Your task to perform on an android device: allow notifications from all sites in the chrome app Image 0: 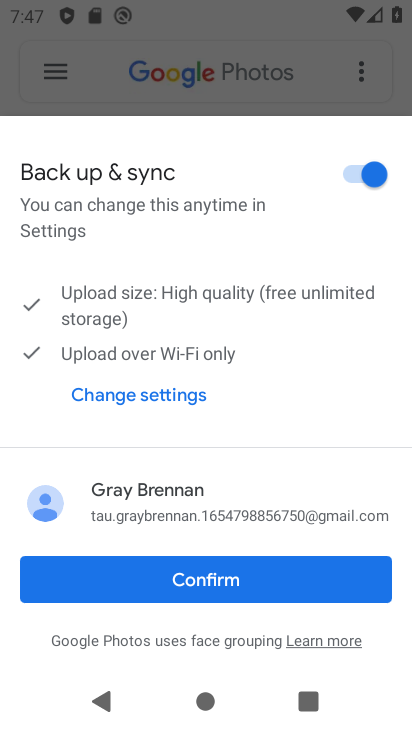
Step 0: click (360, 591)
Your task to perform on an android device: allow notifications from all sites in the chrome app Image 1: 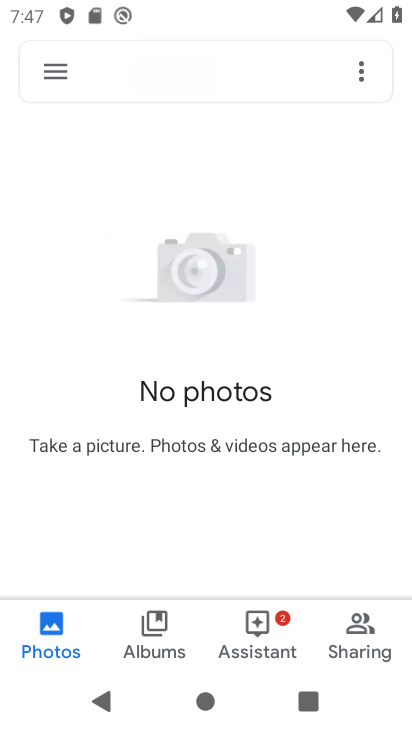
Step 1: press home button
Your task to perform on an android device: allow notifications from all sites in the chrome app Image 2: 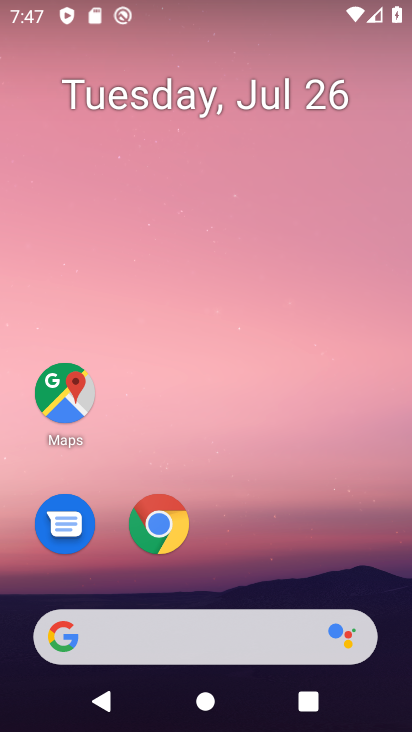
Step 2: drag from (269, 561) to (271, 75)
Your task to perform on an android device: allow notifications from all sites in the chrome app Image 3: 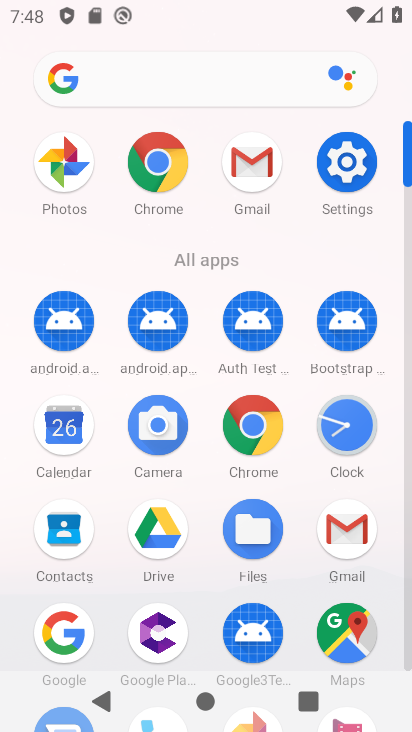
Step 3: click (163, 165)
Your task to perform on an android device: allow notifications from all sites in the chrome app Image 4: 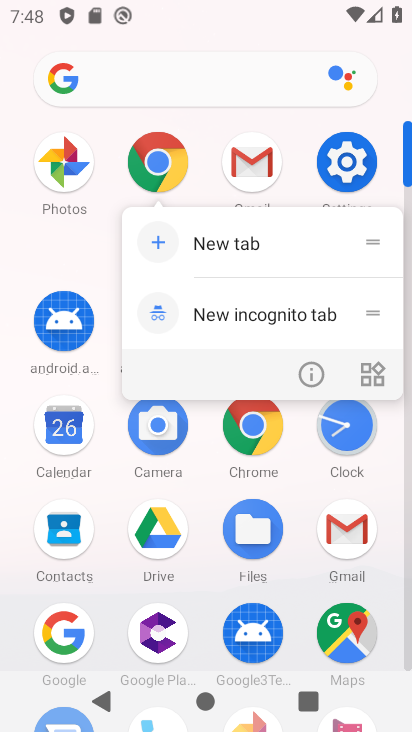
Step 4: click (163, 165)
Your task to perform on an android device: allow notifications from all sites in the chrome app Image 5: 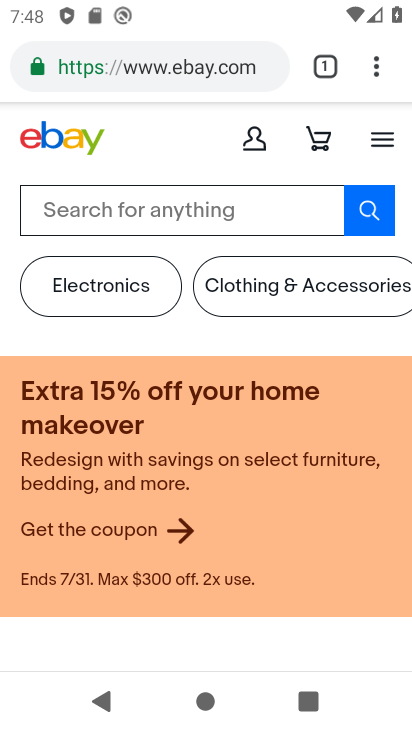
Step 5: click (374, 62)
Your task to perform on an android device: allow notifications from all sites in the chrome app Image 6: 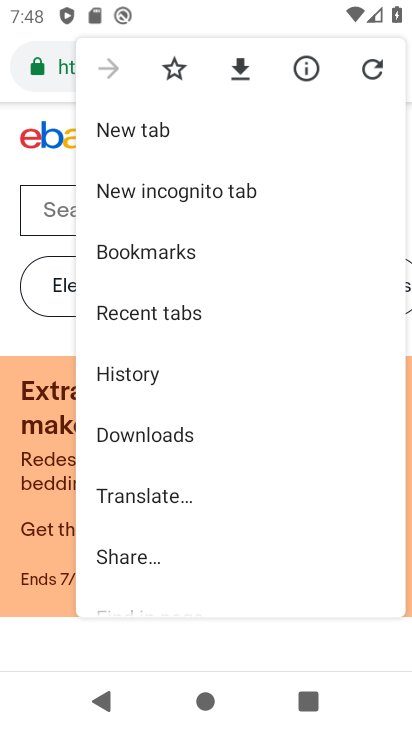
Step 6: drag from (218, 545) to (250, 49)
Your task to perform on an android device: allow notifications from all sites in the chrome app Image 7: 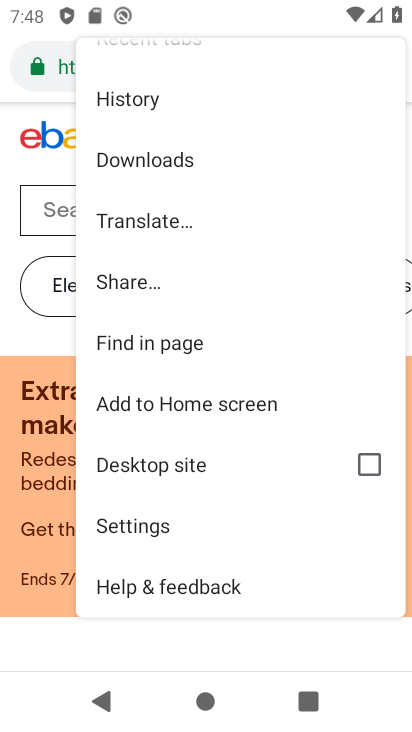
Step 7: click (158, 526)
Your task to perform on an android device: allow notifications from all sites in the chrome app Image 8: 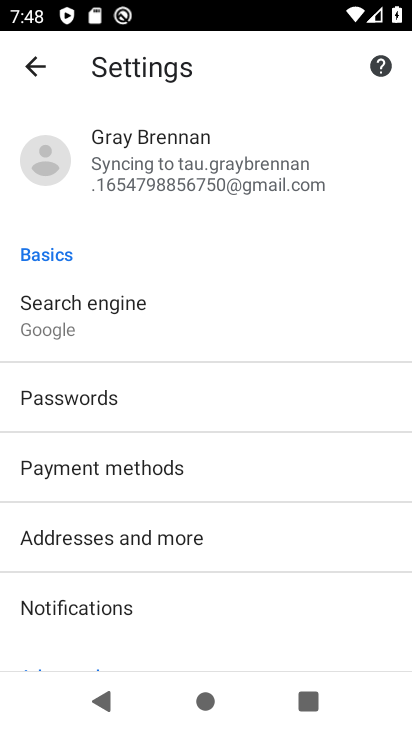
Step 8: click (125, 600)
Your task to perform on an android device: allow notifications from all sites in the chrome app Image 9: 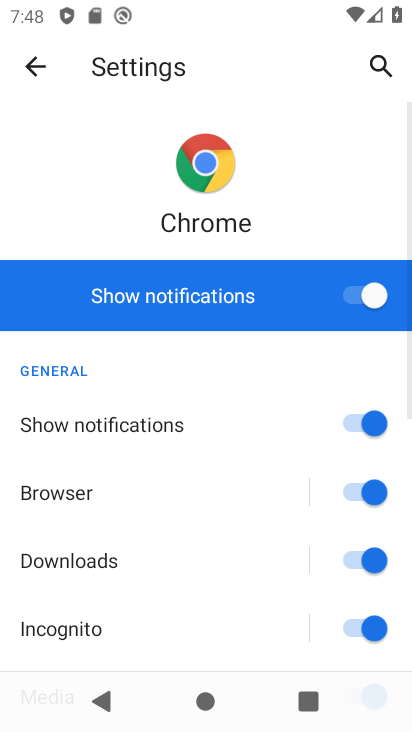
Step 9: task complete